Your task to perform on an android device: Open Google Maps and go to "Timeline" Image 0: 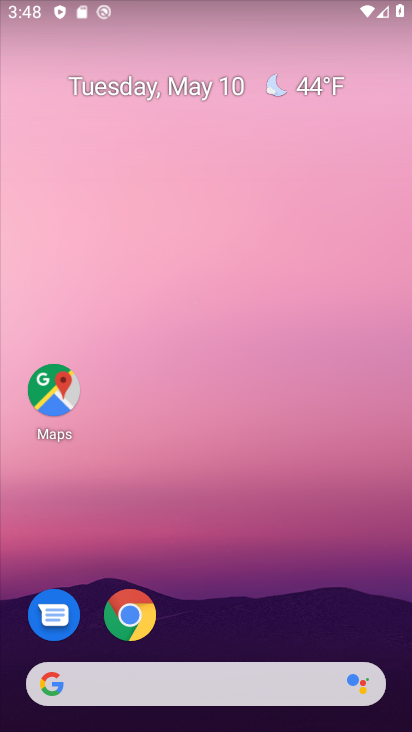
Step 0: drag from (200, 729) to (198, 172)
Your task to perform on an android device: Open Google Maps and go to "Timeline" Image 1: 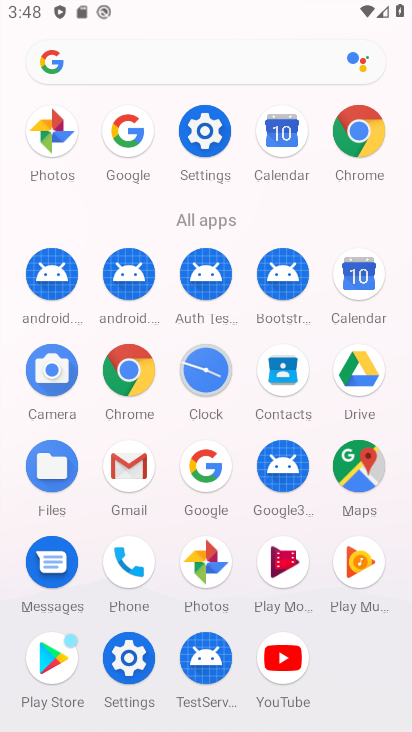
Step 1: click (355, 475)
Your task to perform on an android device: Open Google Maps and go to "Timeline" Image 2: 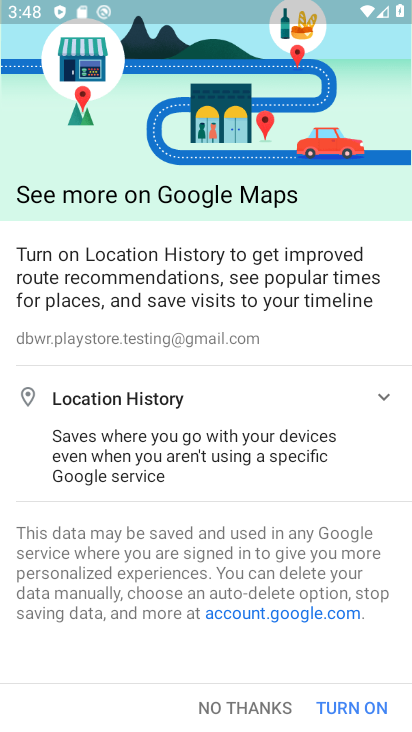
Step 2: click (269, 707)
Your task to perform on an android device: Open Google Maps and go to "Timeline" Image 3: 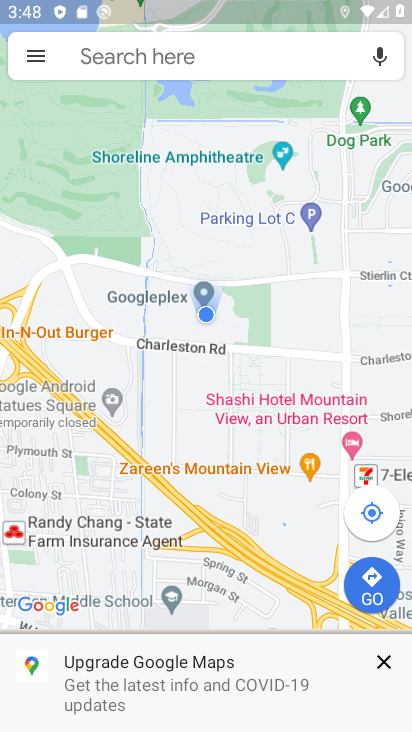
Step 3: click (33, 53)
Your task to perform on an android device: Open Google Maps and go to "Timeline" Image 4: 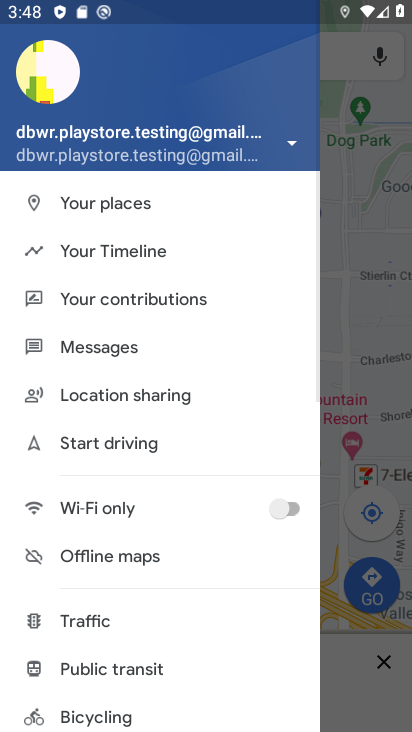
Step 4: click (122, 253)
Your task to perform on an android device: Open Google Maps and go to "Timeline" Image 5: 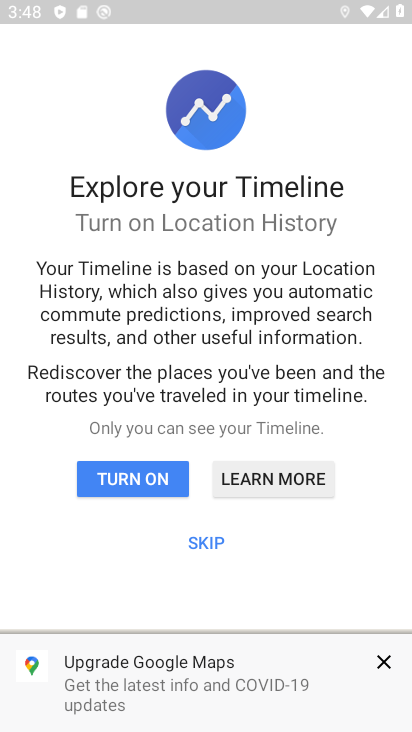
Step 5: click (201, 541)
Your task to perform on an android device: Open Google Maps and go to "Timeline" Image 6: 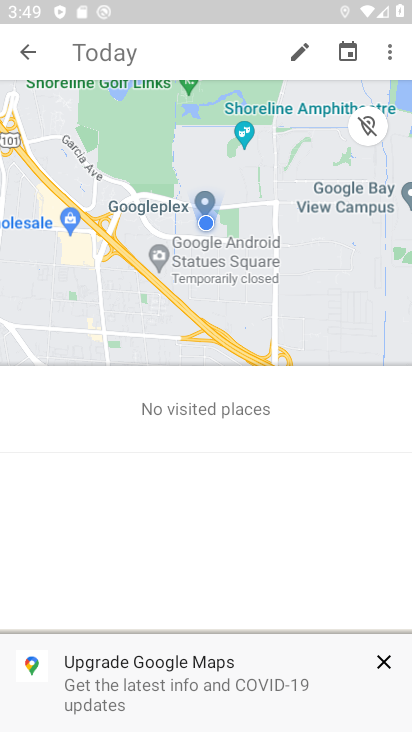
Step 6: task complete